Your task to perform on an android device: Toggle the flashlight Image 0: 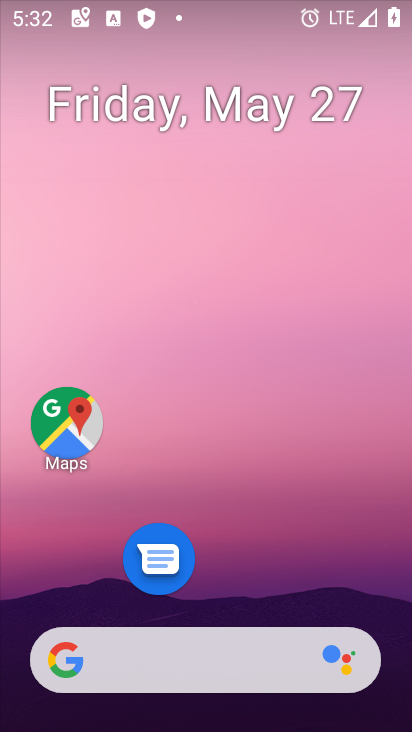
Step 0: drag from (219, 288) to (220, 4)
Your task to perform on an android device: Toggle the flashlight Image 1: 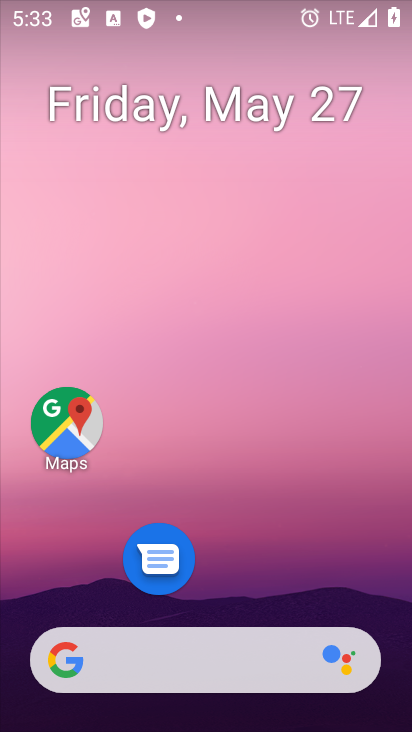
Step 1: task complete